Your task to perform on an android device: Do I have any events tomorrow? Image 0: 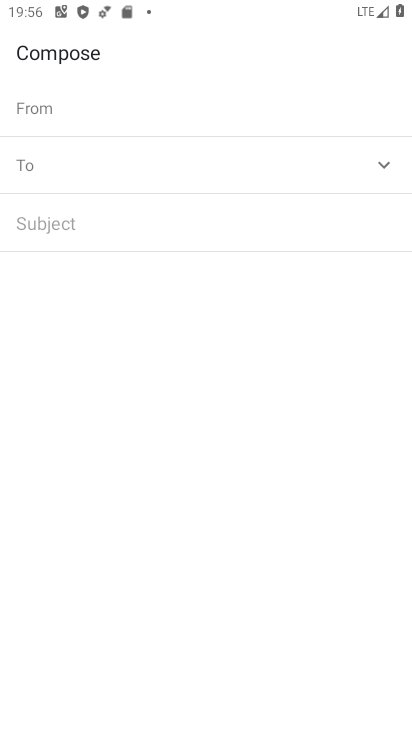
Step 0: drag from (172, 641) to (232, 202)
Your task to perform on an android device: Do I have any events tomorrow? Image 1: 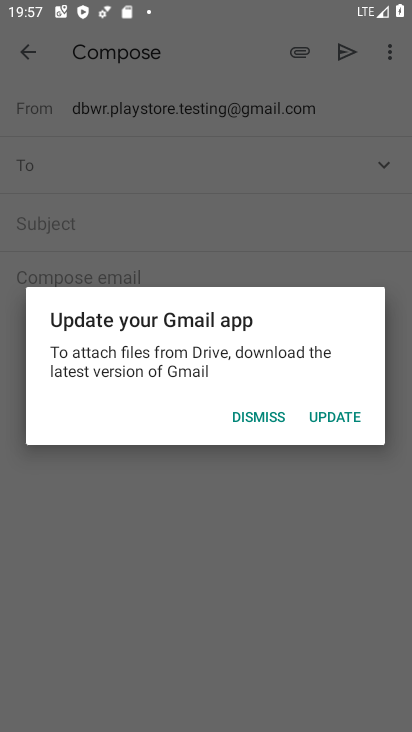
Step 1: press home button
Your task to perform on an android device: Do I have any events tomorrow? Image 2: 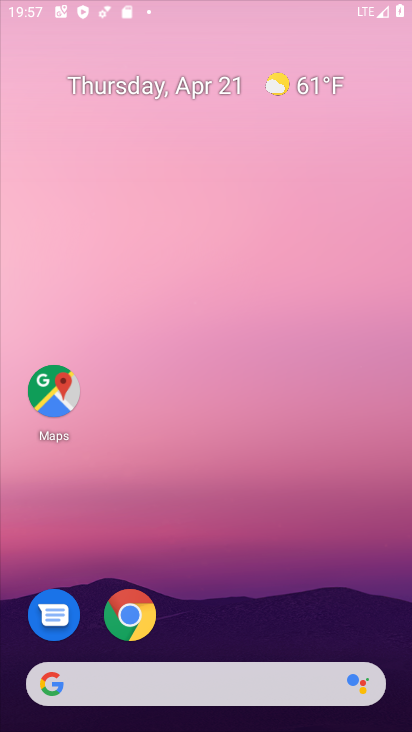
Step 2: drag from (232, 589) to (233, 125)
Your task to perform on an android device: Do I have any events tomorrow? Image 3: 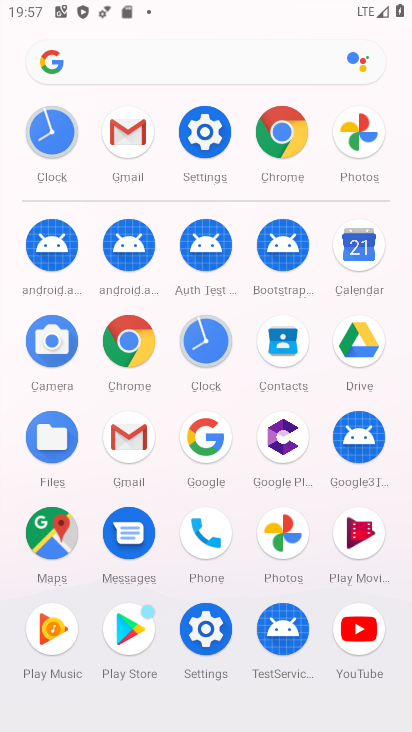
Step 3: click (358, 258)
Your task to perform on an android device: Do I have any events tomorrow? Image 4: 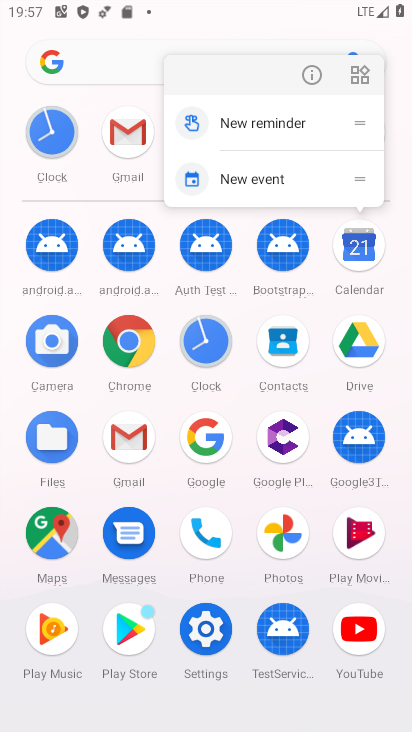
Step 4: click (301, 62)
Your task to perform on an android device: Do I have any events tomorrow? Image 5: 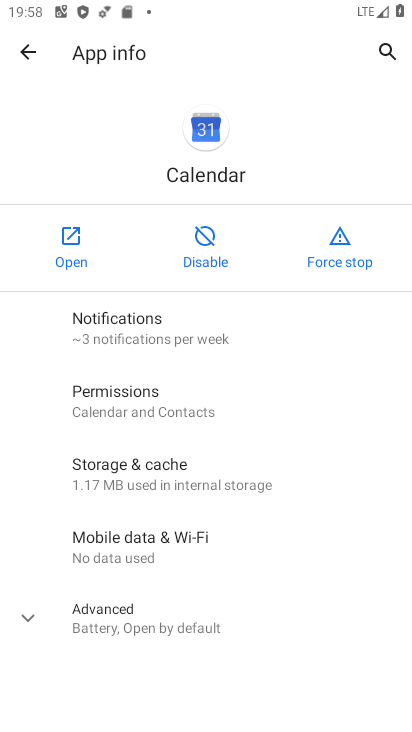
Step 5: click (61, 236)
Your task to perform on an android device: Do I have any events tomorrow? Image 6: 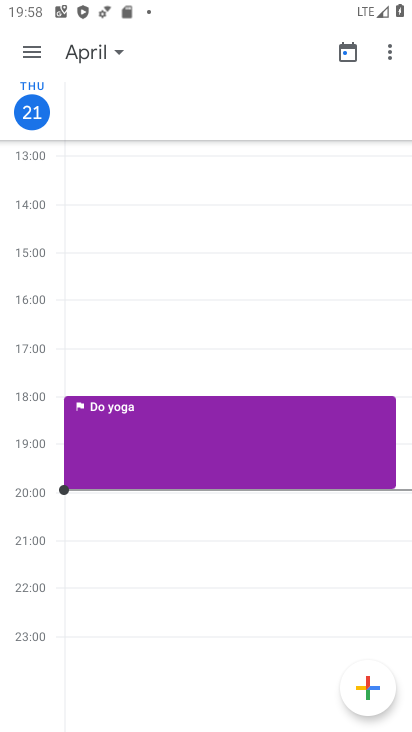
Step 6: task complete